Your task to perform on an android device: turn on translation in the chrome app Image 0: 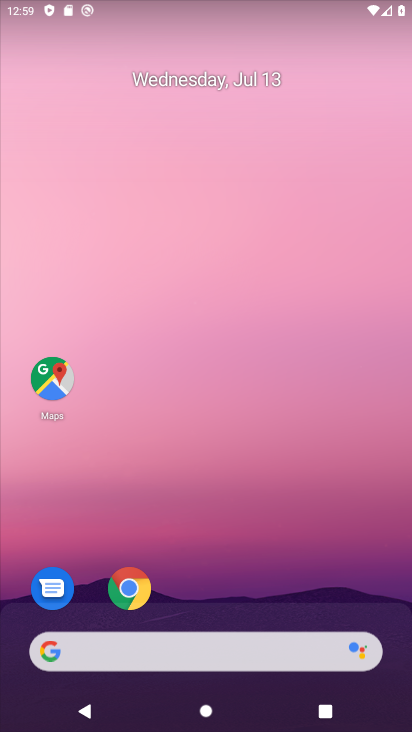
Step 0: click (133, 600)
Your task to perform on an android device: turn on translation in the chrome app Image 1: 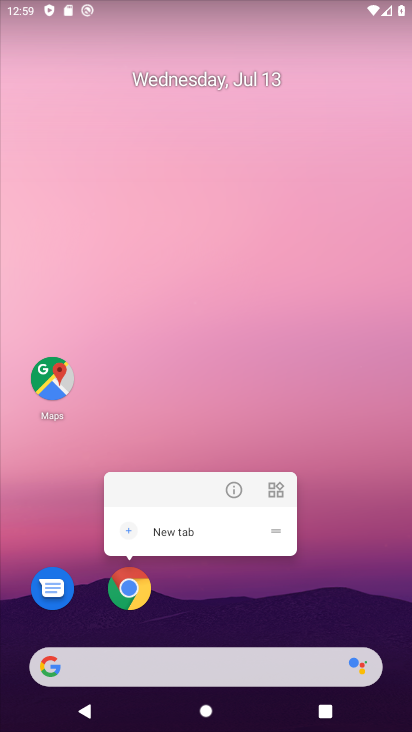
Step 1: click (123, 594)
Your task to perform on an android device: turn on translation in the chrome app Image 2: 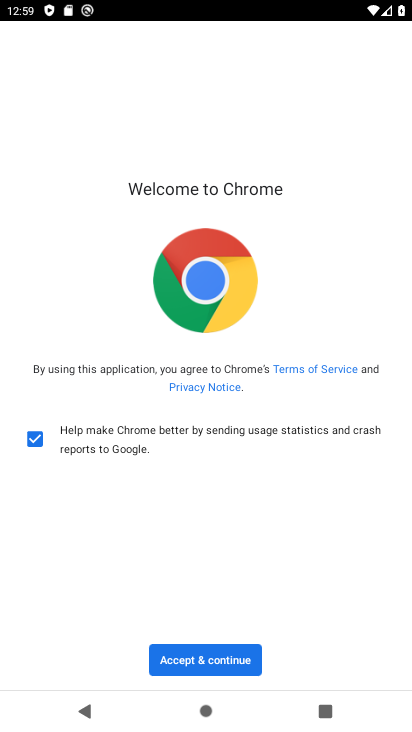
Step 2: click (228, 656)
Your task to perform on an android device: turn on translation in the chrome app Image 3: 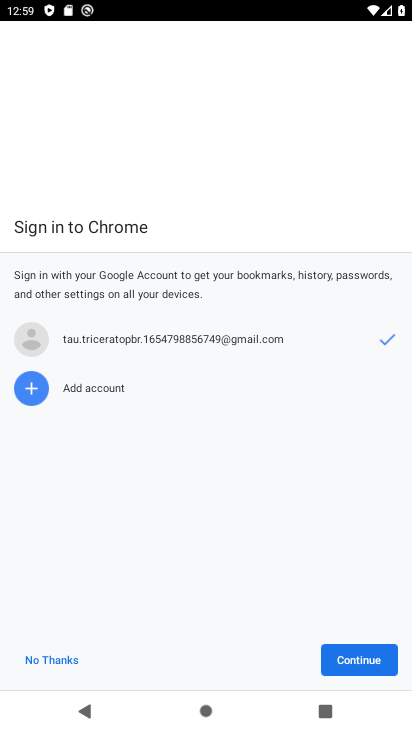
Step 3: click (339, 669)
Your task to perform on an android device: turn on translation in the chrome app Image 4: 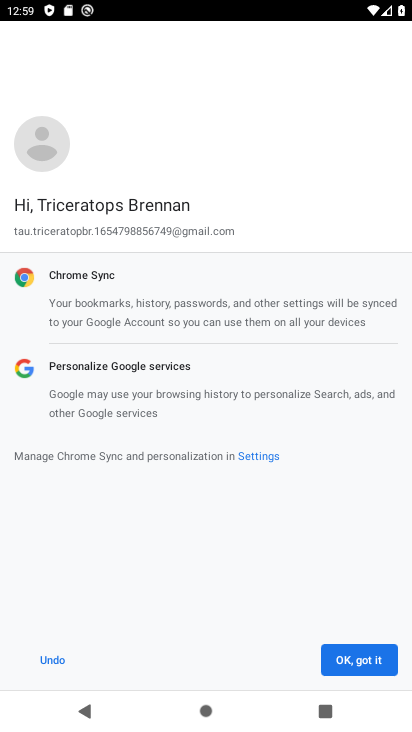
Step 4: click (353, 690)
Your task to perform on an android device: turn on translation in the chrome app Image 5: 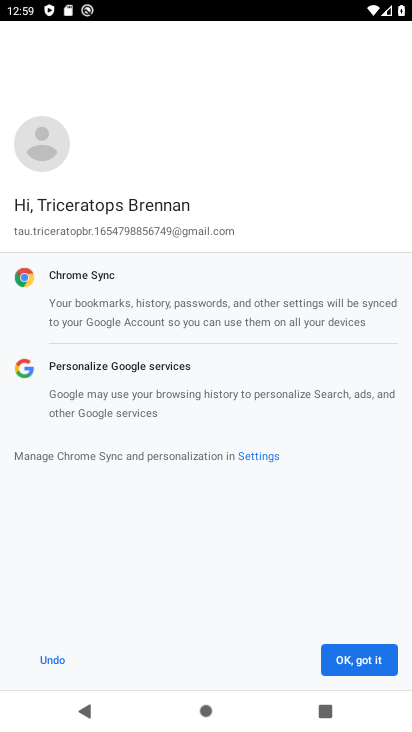
Step 5: click (353, 674)
Your task to perform on an android device: turn on translation in the chrome app Image 6: 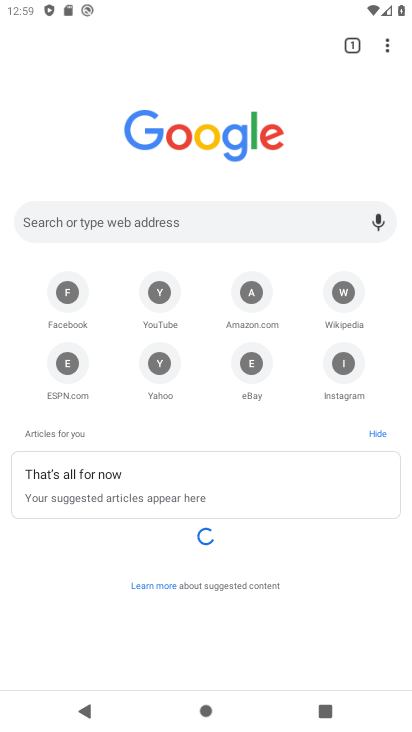
Step 6: drag from (385, 49) to (287, 385)
Your task to perform on an android device: turn on translation in the chrome app Image 7: 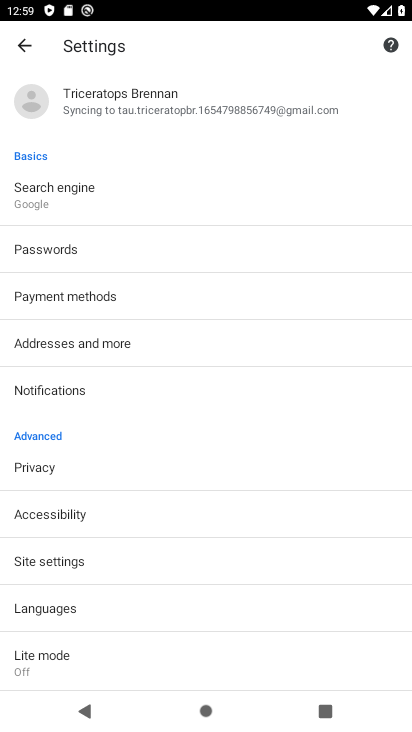
Step 7: click (93, 617)
Your task to perform on an android device: turn on translation in the chrome app Image 8: 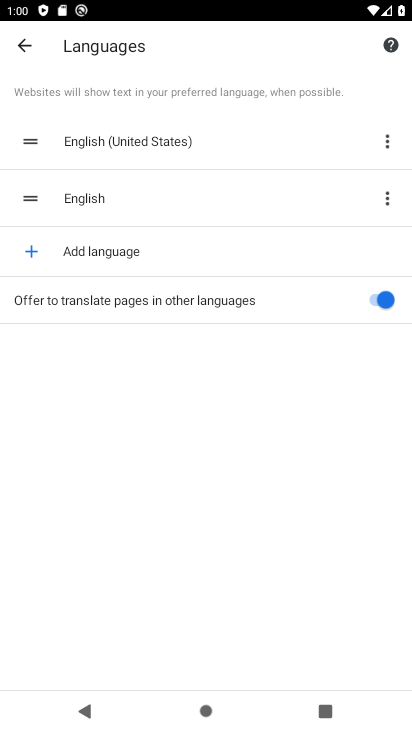
Step 8: task complete